Your task to perform on an android device: check out phone information Image 0: 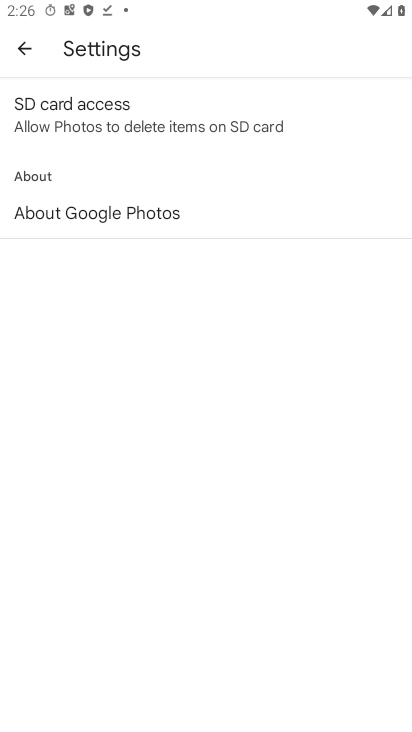
Step 0: press home button
Your task to perform on an android device: check out phone information Image 1: 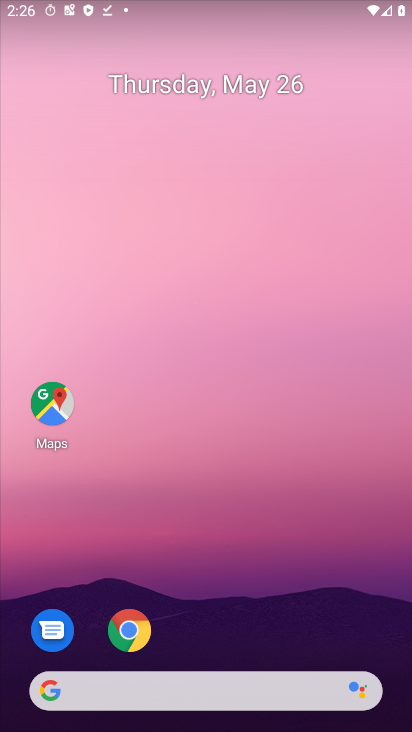
Step 1: drag from (269, 590) to (253, 162)
Your task to perform on an android device: check out phone information Image 2: 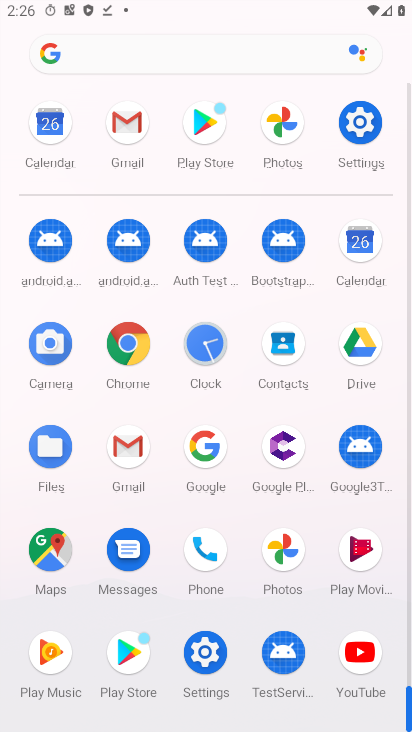
Step 2: click (344, 126)
Your task to perform on an android device: check out phone information Image 3: 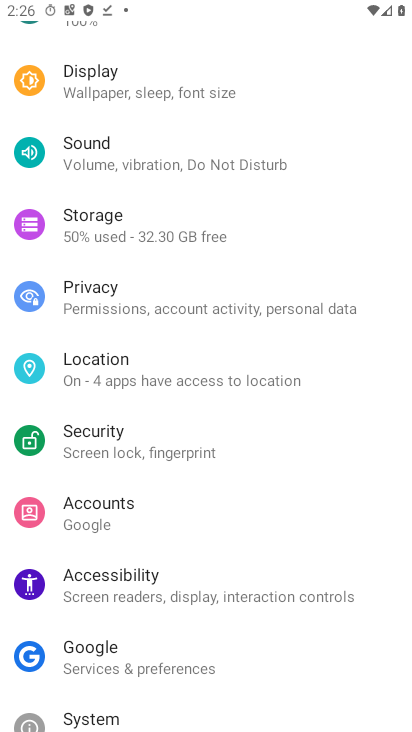
Step 3: drag from (184, 667) to (161, 224)
Your task to perform on an android device: check out phone information Image 4: 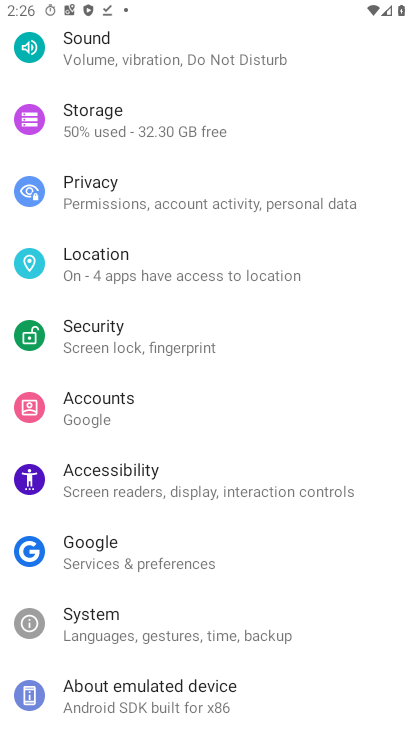
Step 4: drag from (232, 515) to (245, 695)
Your task to perform on an android device: check out phone information Image 5: 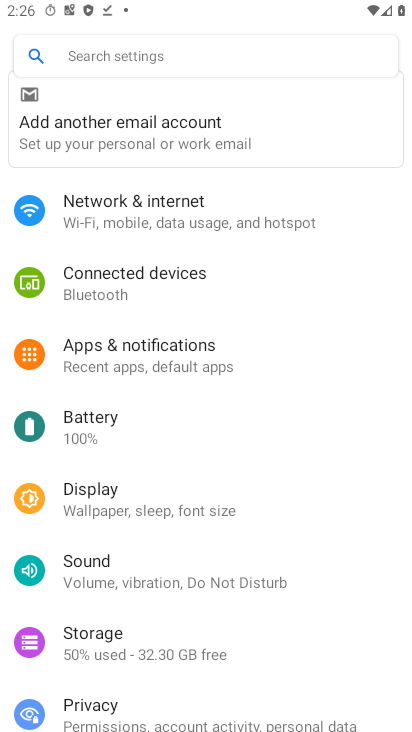
Step 5: drag from (214, 349) to (264, 668)
Your task to perform on an android device: check out phone information Image 6: 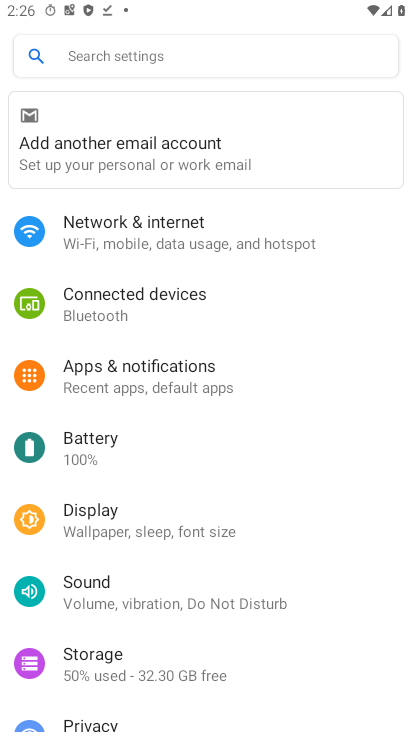
Step 6: drag from (224, 651) to (195, 279)
Your task to perform on an android device: check out phone information Image 7: 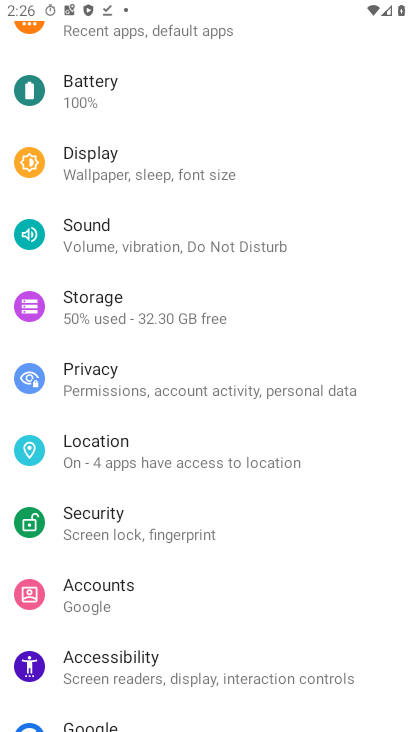
Step 7: drag from (255, 578) to (256, 264)
Your task to perform on an android device: check out phone information Image 8: 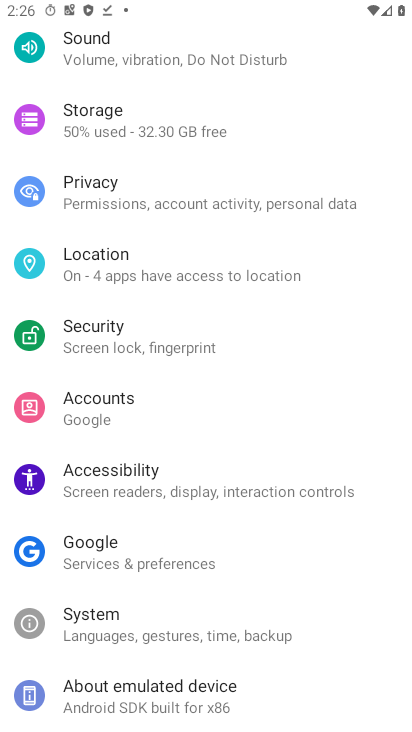
Step 8: drag from (301, 574) to (268, 277)
Your task to perform on an android device: check out phone information Image 9: 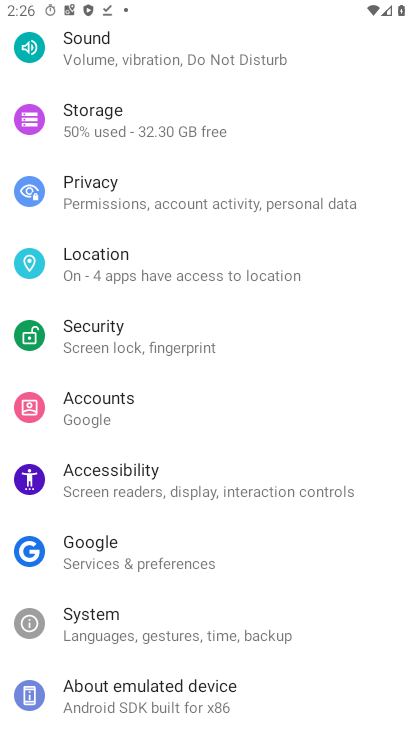
Step 9: drag from (262, 222) to (322, 694)
Your task to perform on an android device: check out phone information Image 10: 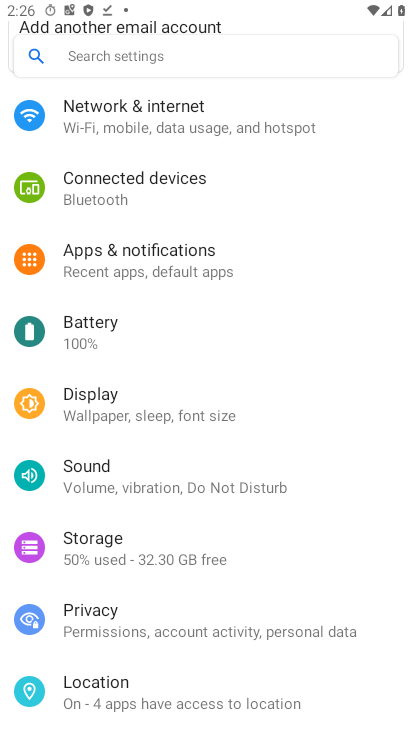
Step 10: drag from (189, 306) to (236, 719)
Your task to perform on an android device: check out phone information Image 11: 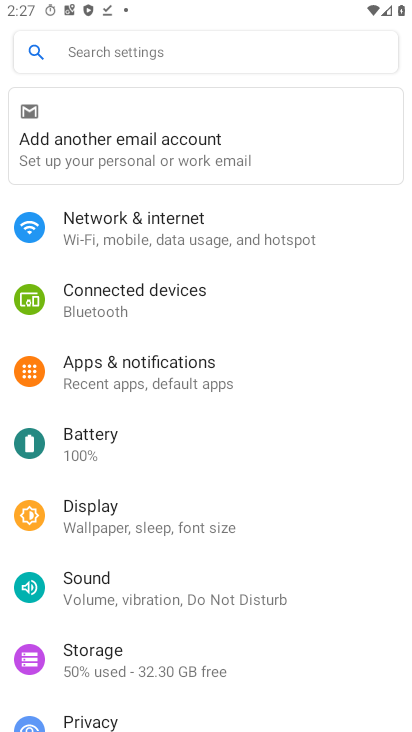
Step 11: drag from (281, 696) to (261, 293)
Your task to perform on an android device: check out phone information Image 12: 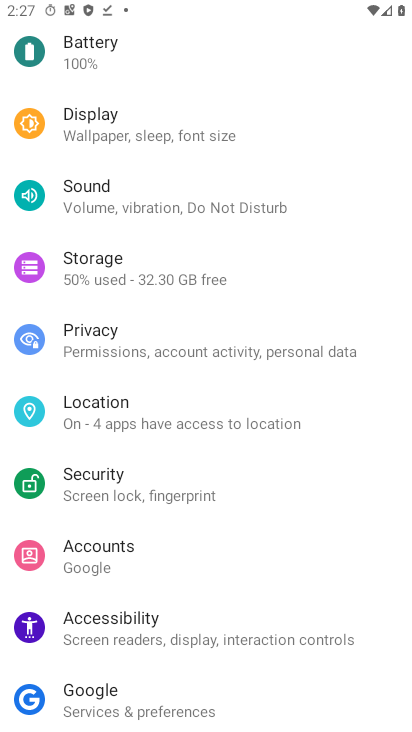
Step 12: drag from (228, 683) to (208, 226)
Your task to perform on an android device: check out phone information Image 13: 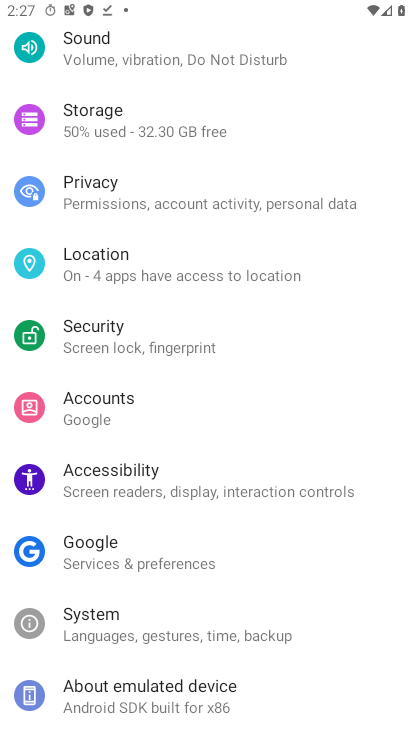
Step 13: click (119, 700)
Your task to perform on an android device: check out phone information Image 14: 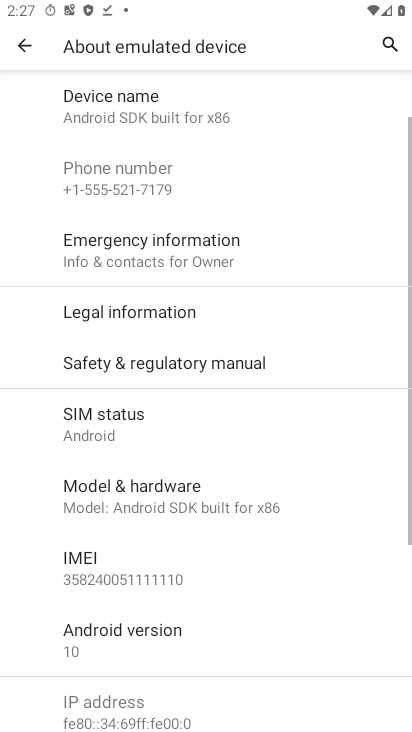
Step 14: drag from (217, 565) to (191, 184)
Your task to perform on an android device: check out phone information Image 15: 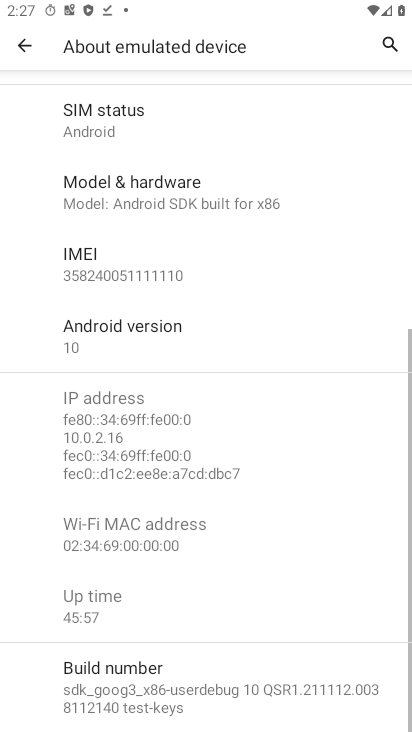
Step 15: drag from (211, 510) to (188, 212)
Your task to perform on an android device: check out phone information Image 16: 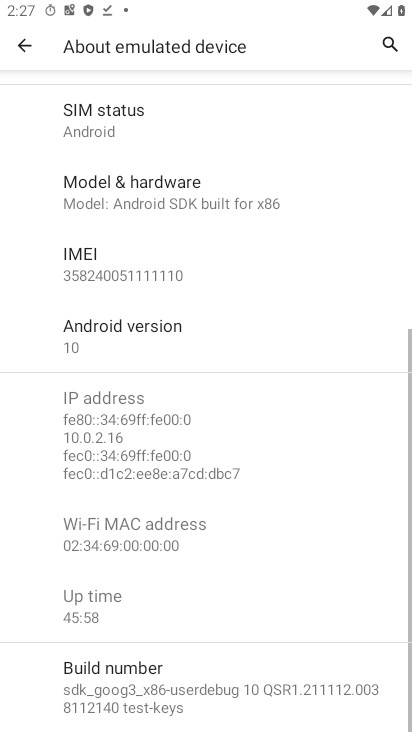
Step 16: drag from (116, 196) to (172, 609)
Your task to perform on an android device: check out phone information Image 17: 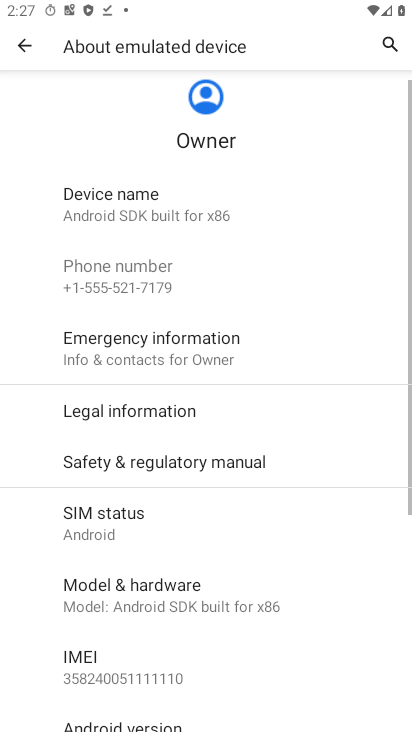
Step 17: drag from (152, 632) to (151, 253)
Your task to perform on an android device: check out phone information Image 18: 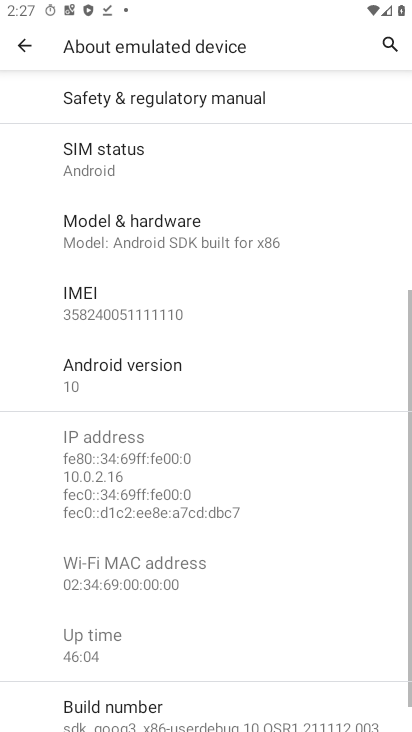
Step 18: click (117, 371)
Your task to perform on an android device: check out phone information Image 19: 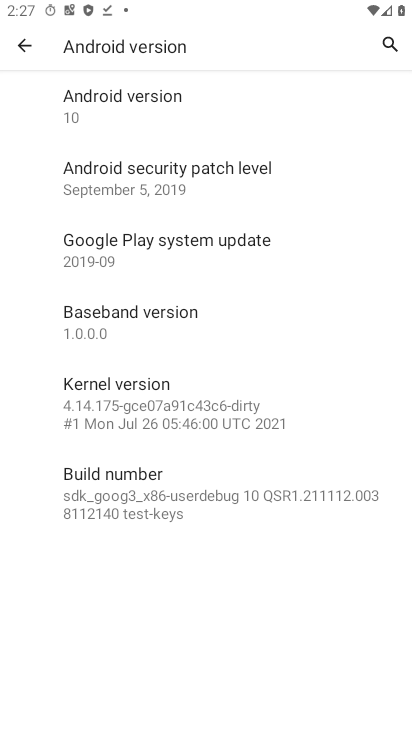
Step 19: task complete